Your task to perform on an android device: choose inbox layout in the gmail app Image 0: 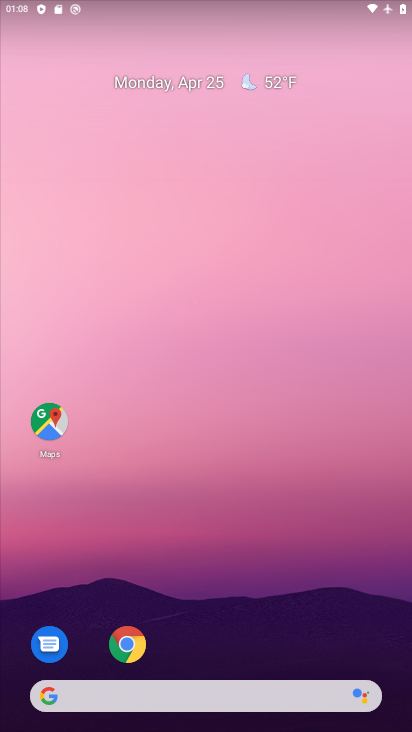
Step 0: drag from (310, 645) to (288, 311)
Your task to perform on an android device: choose inbox layout in the gmail app Image 1: 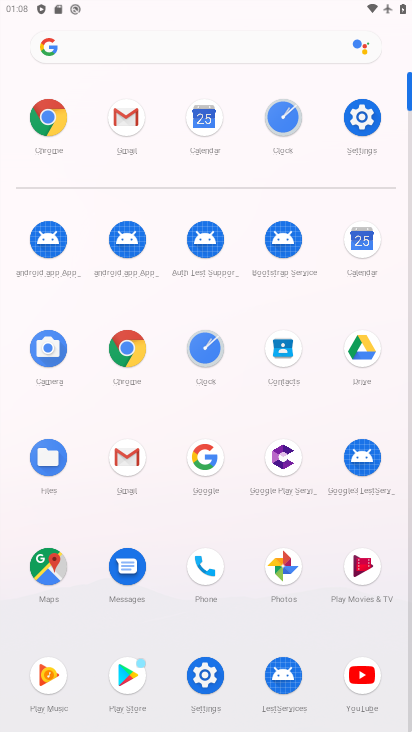
Step 1: click (124, 453)
Your task to perform on an android device: choose inbox layout in the gmail app Image 2: 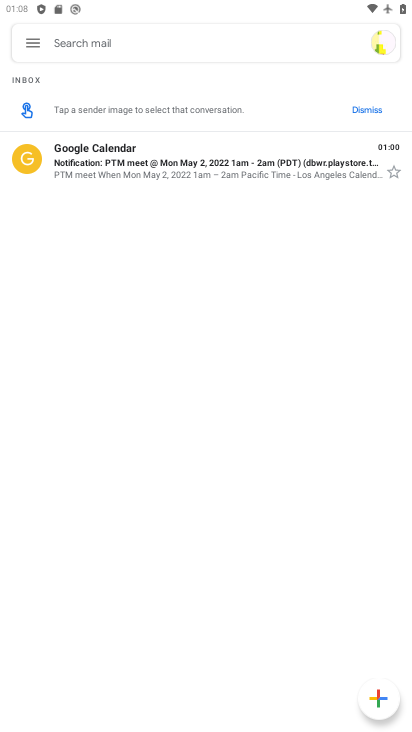
Step 2: click (33, 53)
Your task to perform on an android device: choose inbox layout in the gmail app Image 3: 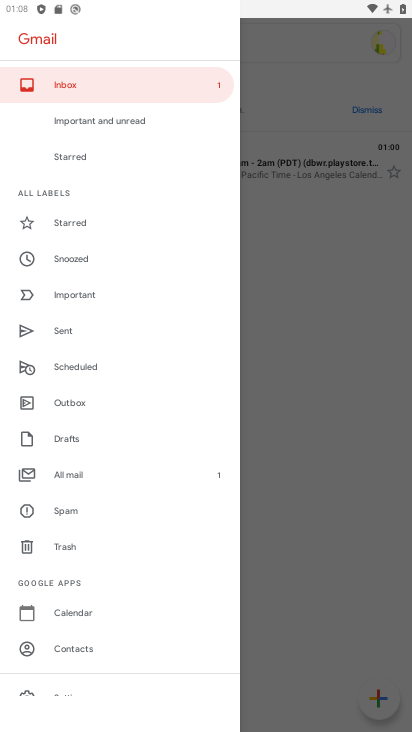
Step 3: click (47, 73)
Your task to perform on an android device: choose inbox layout in the gmail app Image 4: 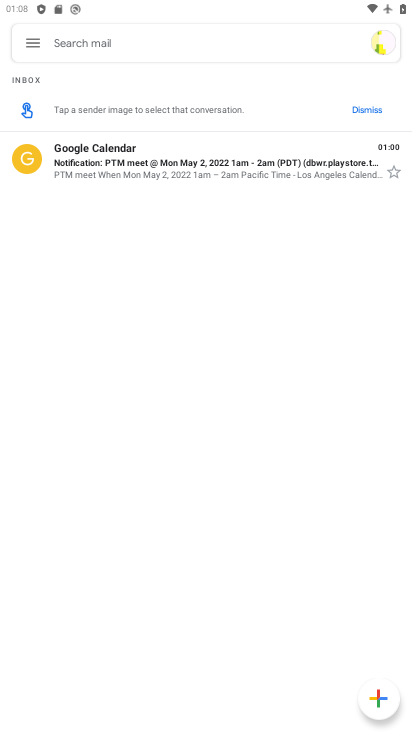
Step 4: task complete